Your task to perform on an android device: Play the last video I watched on Youtube Image 0: 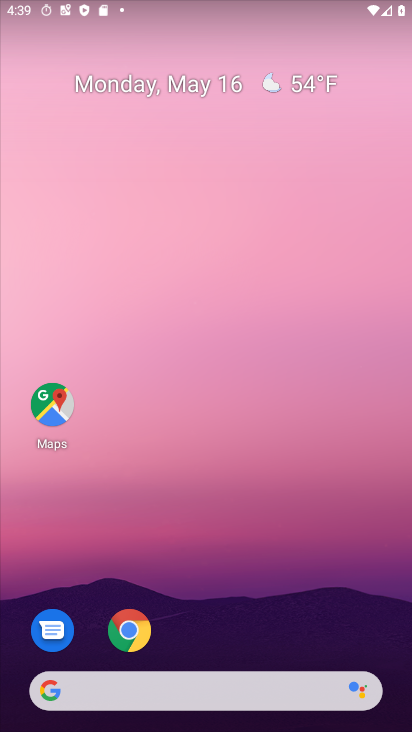
Step 0: drag from (213, 624) to (240, 81)
Your task to perform on an android device: Play the last video I watched on Youtube Image 1: 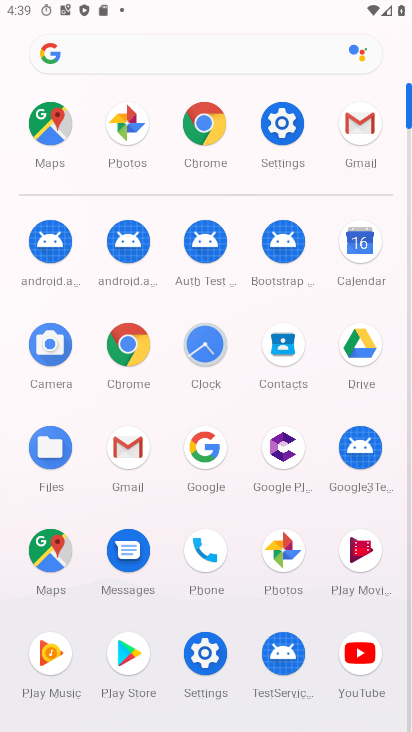
Step 1: click (363, 652)
Your task to perform on an android device: Play the last video I watched on Youtube Image 2: 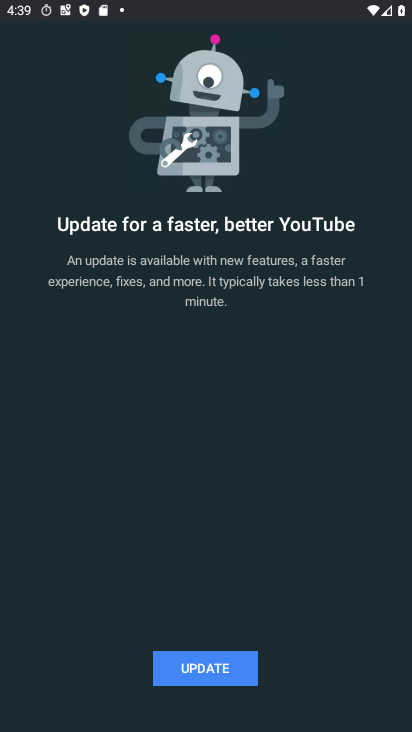
Step 2: click (231, 669)
Your task to perform on an android device: Play the last video I watched on Youtube Image 3: 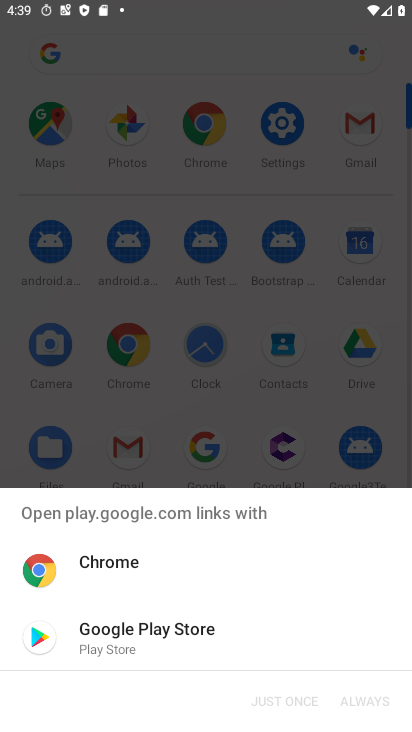
Step 3: click (251, 646)
Your task to perform on an android device: Play the last video I watched on Youtube Image 4: 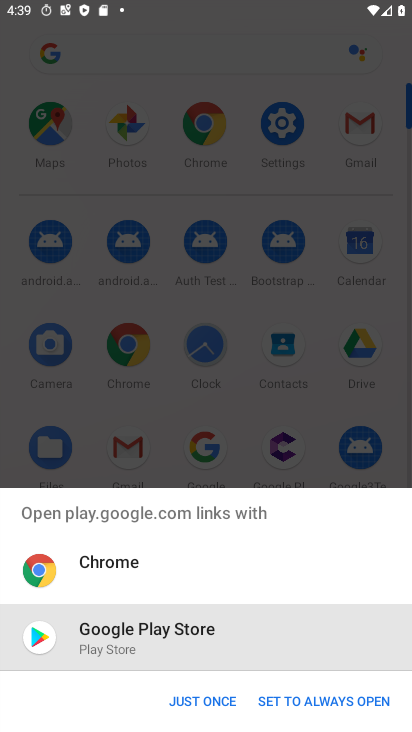
Step 4: click (219, 694)
Your task to perform on an android device: Play the last video I watched on Youtube Image 5: 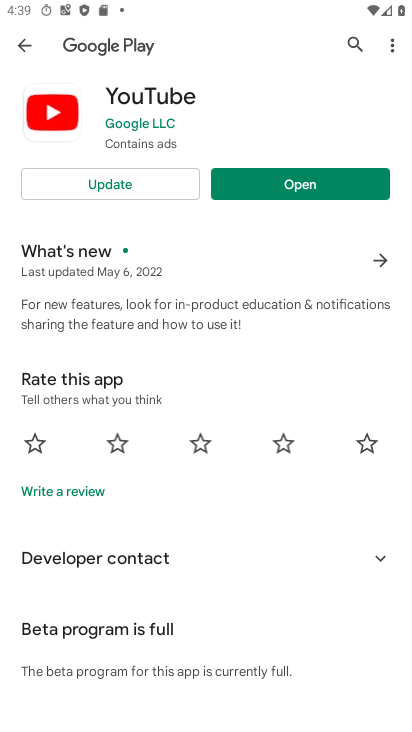
Step 5: click (150, 190)
Your task to perform on an android device: Play the last video I watched on Youtube Image 6: 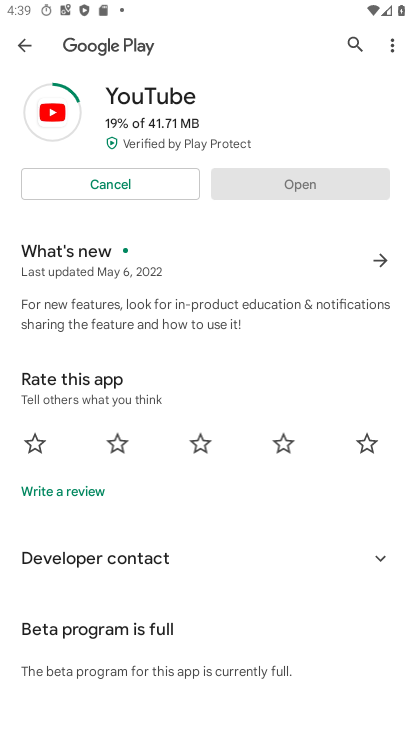
Step 6: click (190, 263)
Your task to perform on an android device: Play the last video I watched on Youtube Image 7: 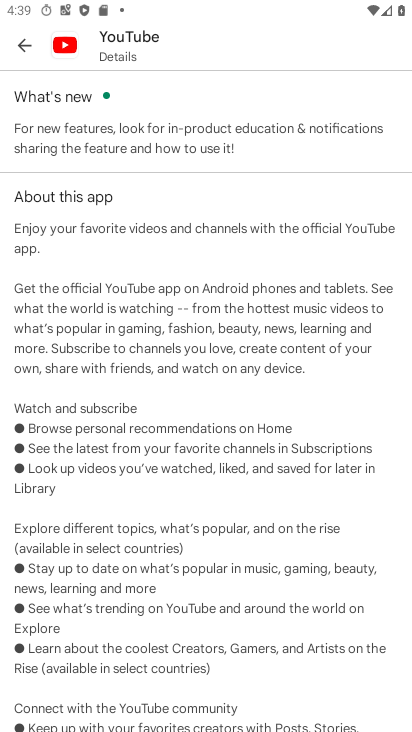
Step 7: click (23, 46)
Your task to perform on an android device: Play the last video I watched on Youtube Image 8: 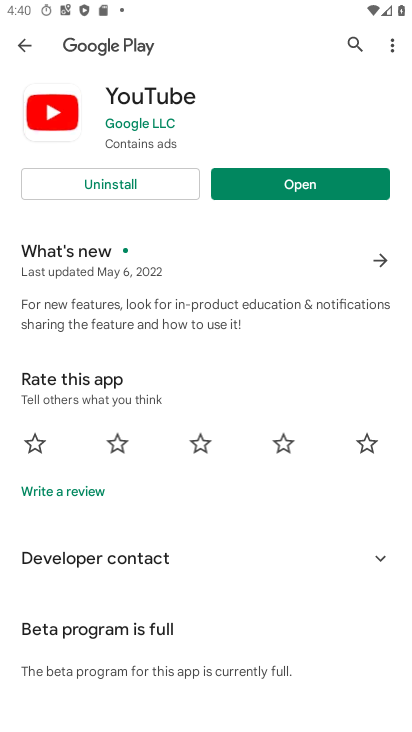
Step 8: click (296, 191)
Your task to perform on an android device: Play the last video I watched on Youtube Image 9: 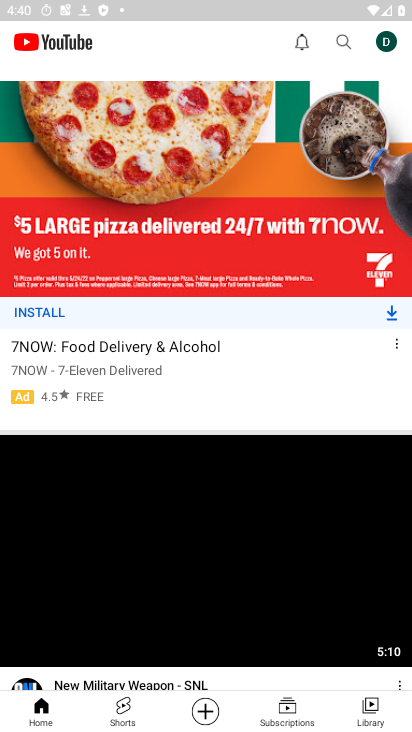
Step 9: click (370, 715)
Your task to perform on an android device: Play the last video I watched on Youtube Image 10: 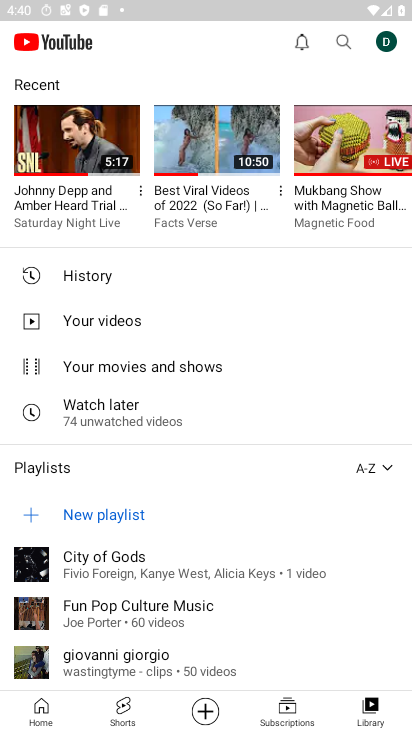
Step 10: click (94, 209)
Your task to perform on an android device: Play the last video I watched on Youtube Image 11: 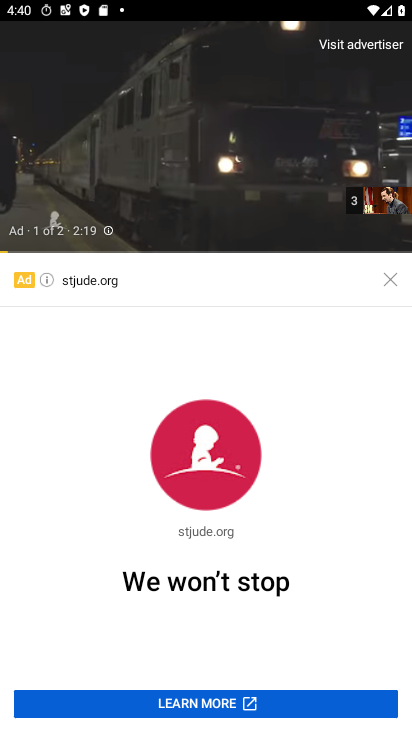
Step 11: task complete